Your task to perform on an android device: check battery use Image 0: 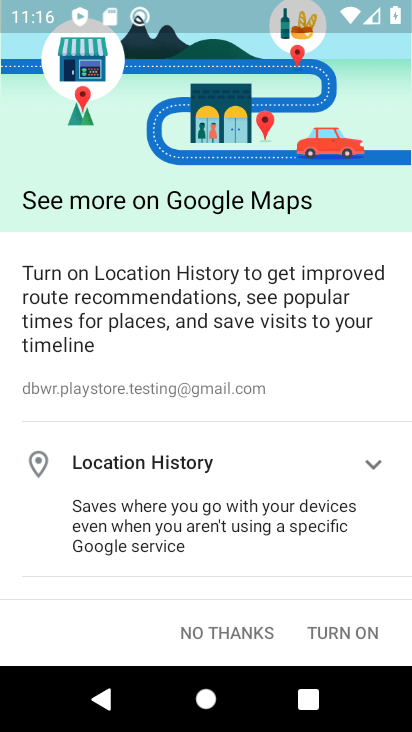
Step 0: press home button
Your task to perform on an android device: check battery use Image 1: 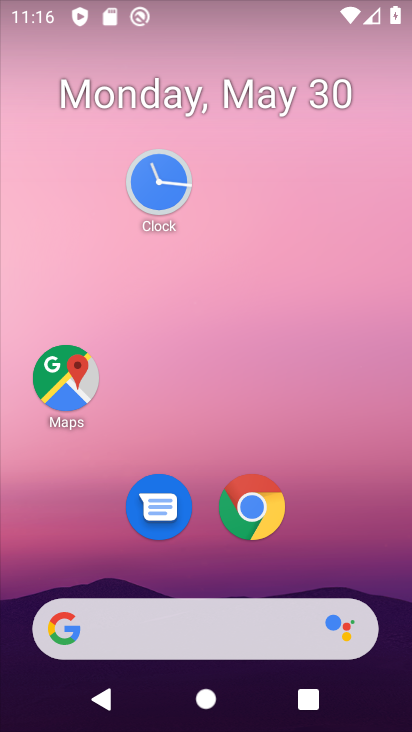
Step 1: drag from (316, 547) to (407, 3)
Your task to perform on an android device: check battery use Image 2: 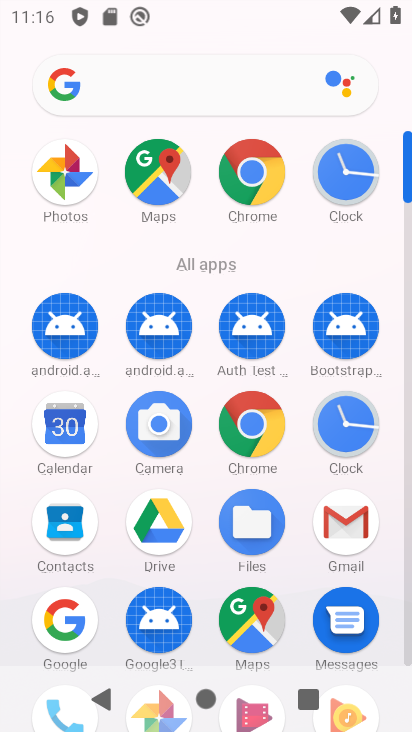
Step 2: drag from (150, 517) to (243, 73)
Your task to perform on an android device: check battery use Image 3: 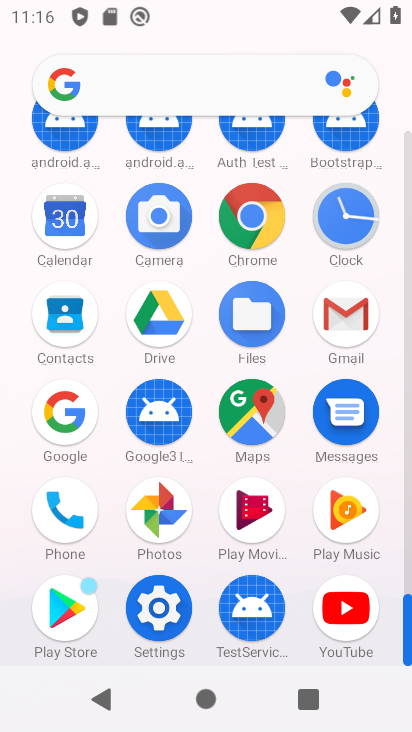
Step 3: drag from (172, 611) to (103, 211)
Your task to perform on an android device: check battery use Image 4: 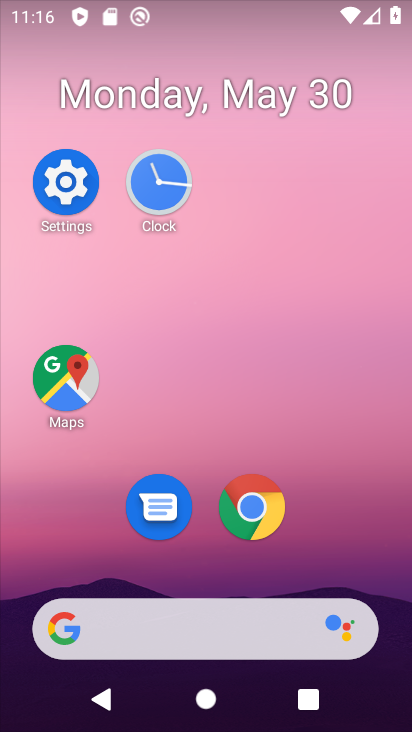
Step 4: click (57, 176)
Your task to perform on an android device: check battery use Image 5: 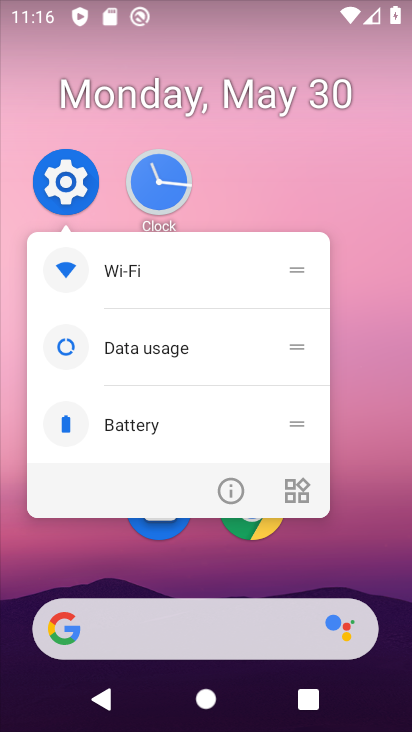
Step 5: click (57, 175)
Your task to perform on an android device: check battery use Image 6: 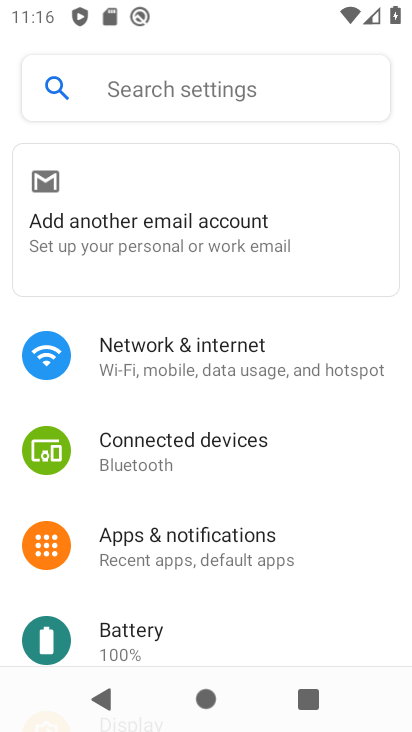
Step 6: drag from (140, 587) to (164, 226)
Your task to perform on an android device: check battery use Image 7: 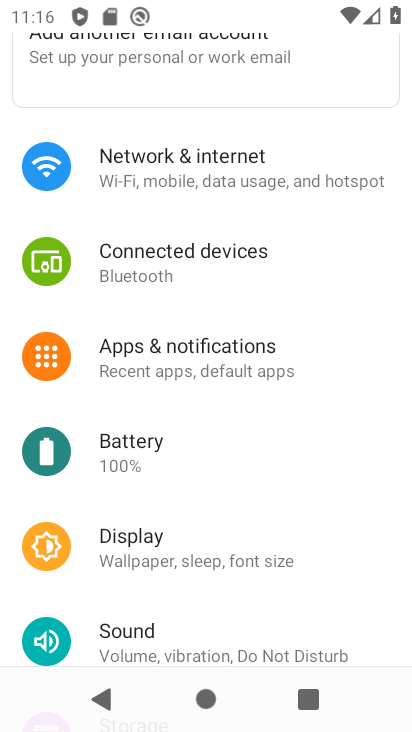
Step 7: click (131, 445)
Your task to perform on an android device: check battery use Image 8: 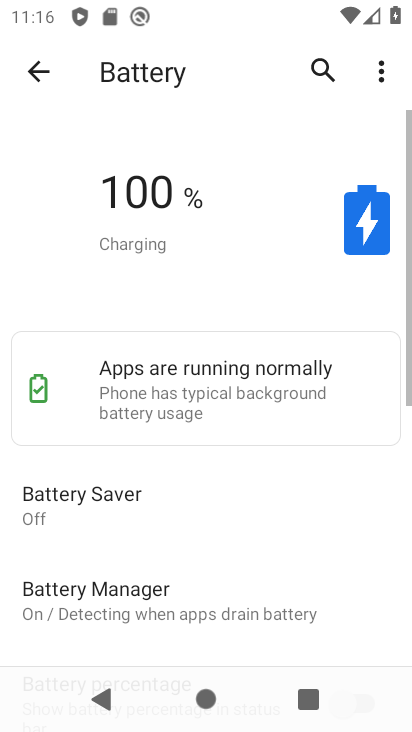
Step 8: click (385, 74)
Your task to perform on an android device: check battery use Image 9: 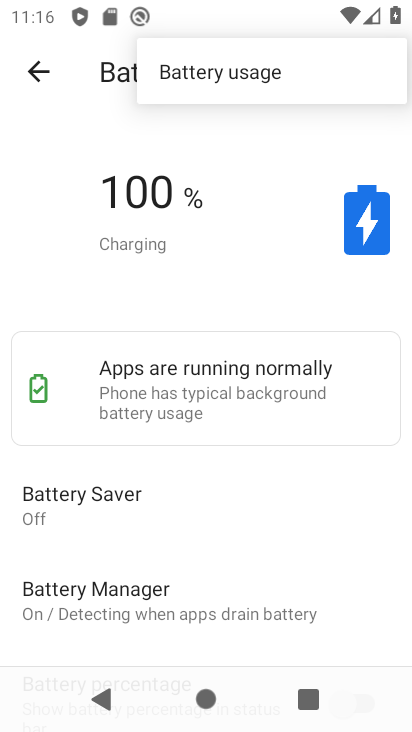
Step 9: click (300, 80)
Your task to perform on an android device: check battery use Image 10: 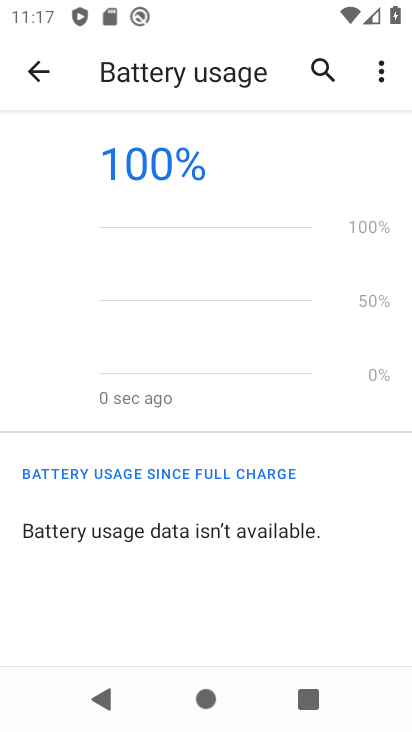
Step 10: task complete